Your task to perform on an android device: Open Google Chrome and open the bookmarks view Image 0: 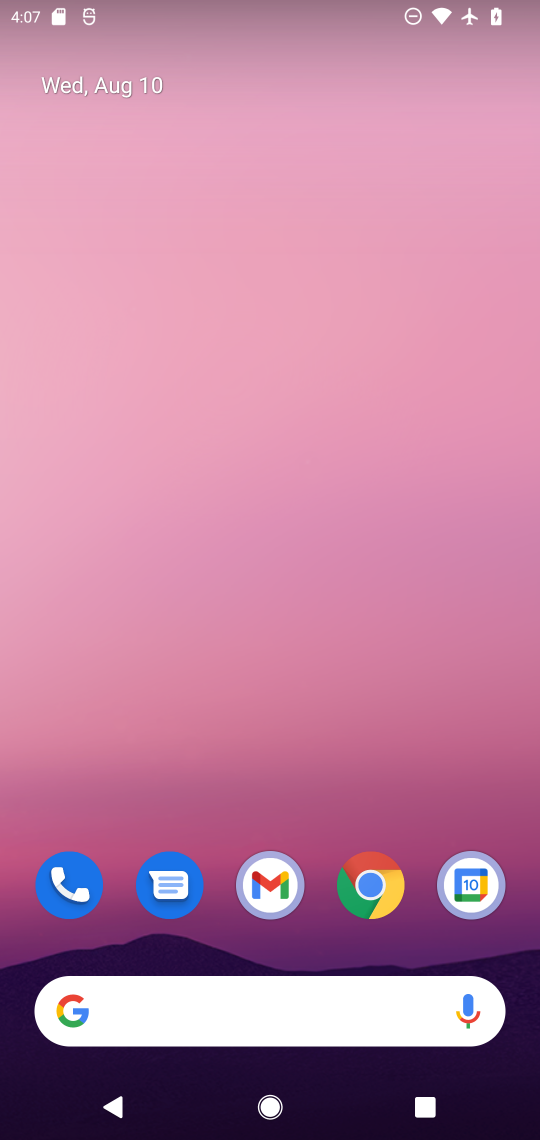
Step 0: click (379, 890)
Your task to perform on an android device: Open Google Chrome and open the bookmarks view Image 1: 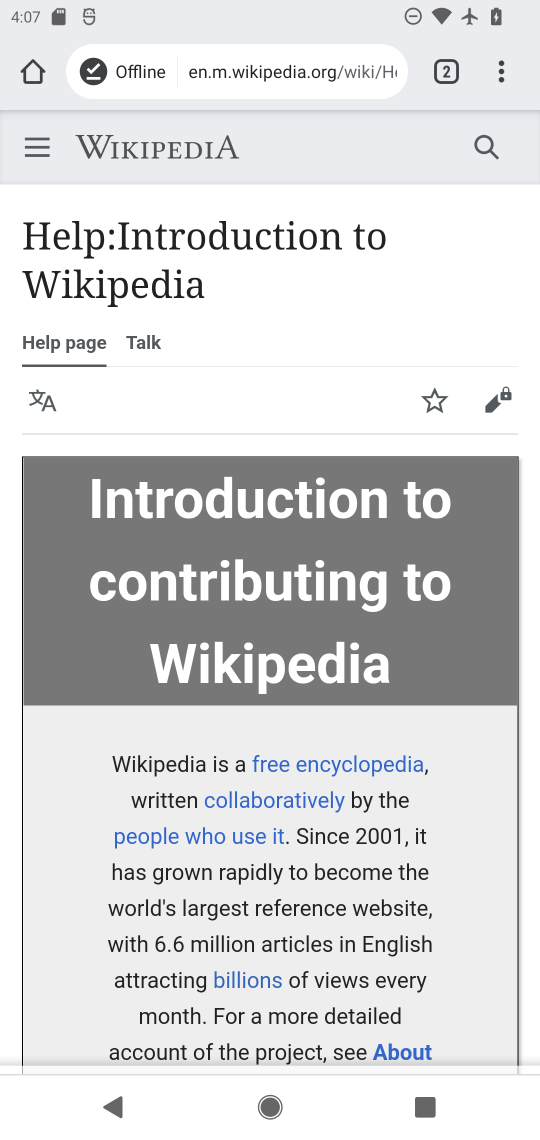
Step 1: click (494, 82)
Your task to perform on an android device: Open Google Chrome and open the bookmarks view Image 2: 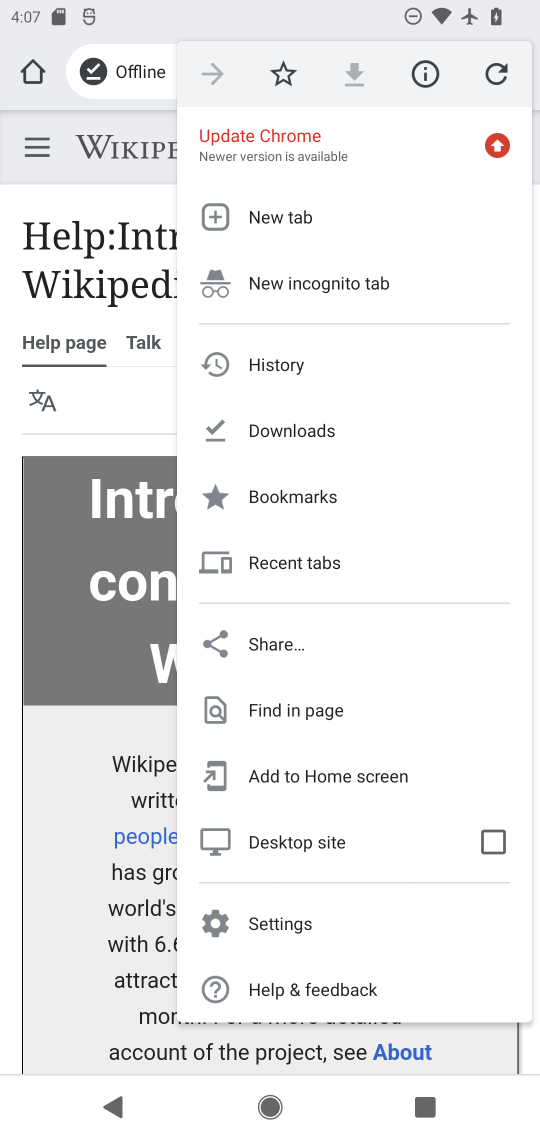
Step 2: click (298, 492)
Your task to perform on an android device: Open Google Chrome and open the bookmarks view Image 3: 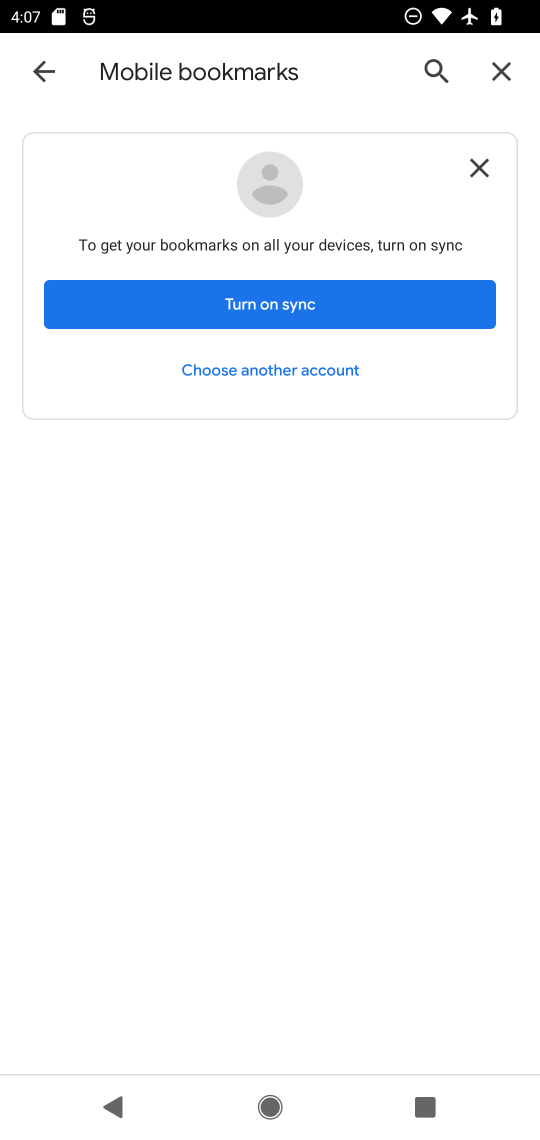
Step 3: click (314, 303)
Your task to perform on an android device: Open Google Chrome and open the bookmarks view Image 4: 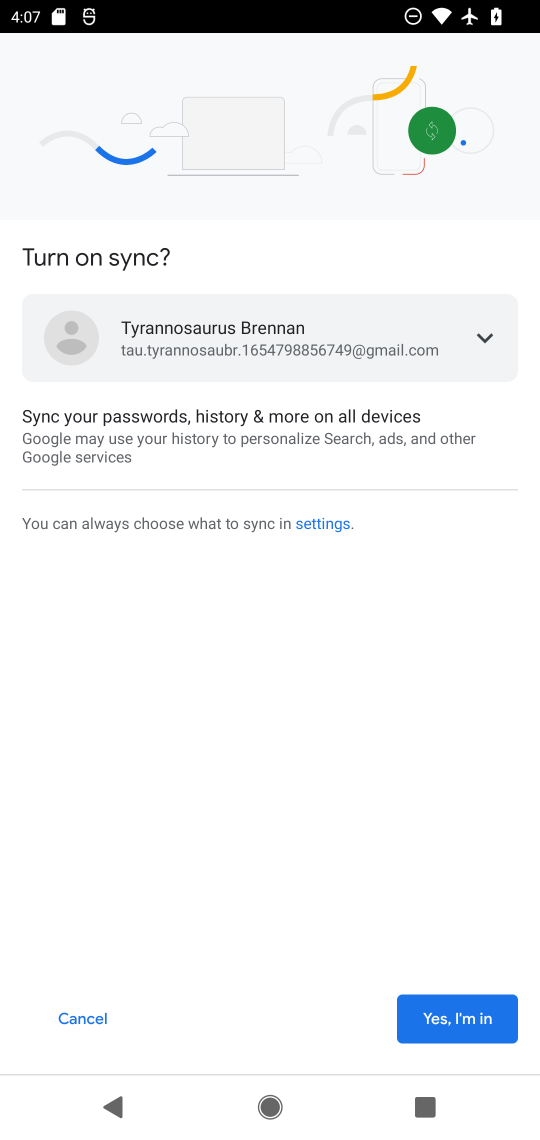
Step 4: click (423, 1010)
Your task to perform on an android device: Open Google Chrome and open the bookmarks view Image 5: 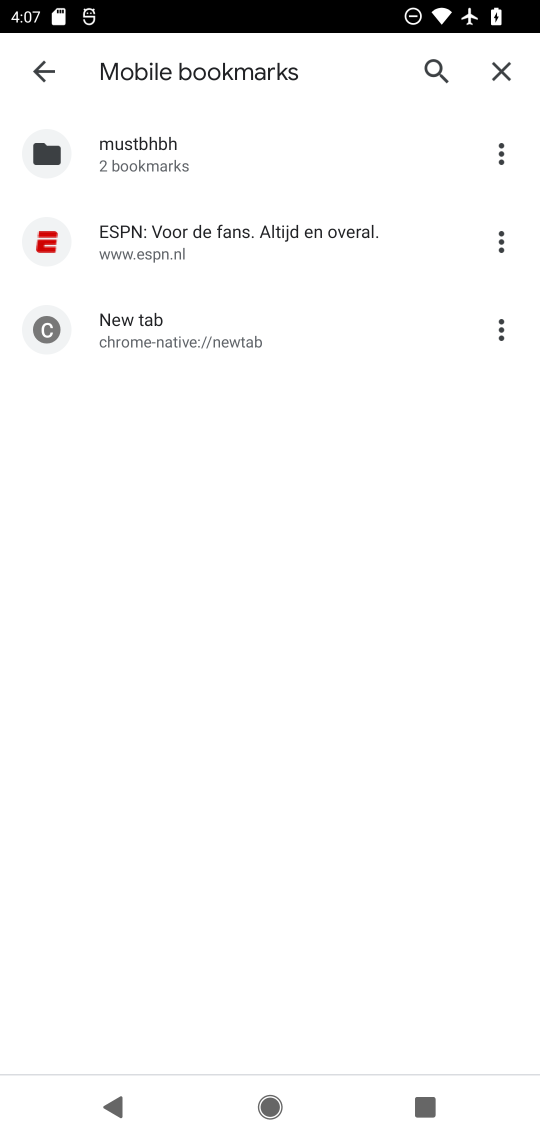
Step 5: click (502, 146)
Your task to perform on an android device: Open Google Chrome and open the bookmarks view Image 6: 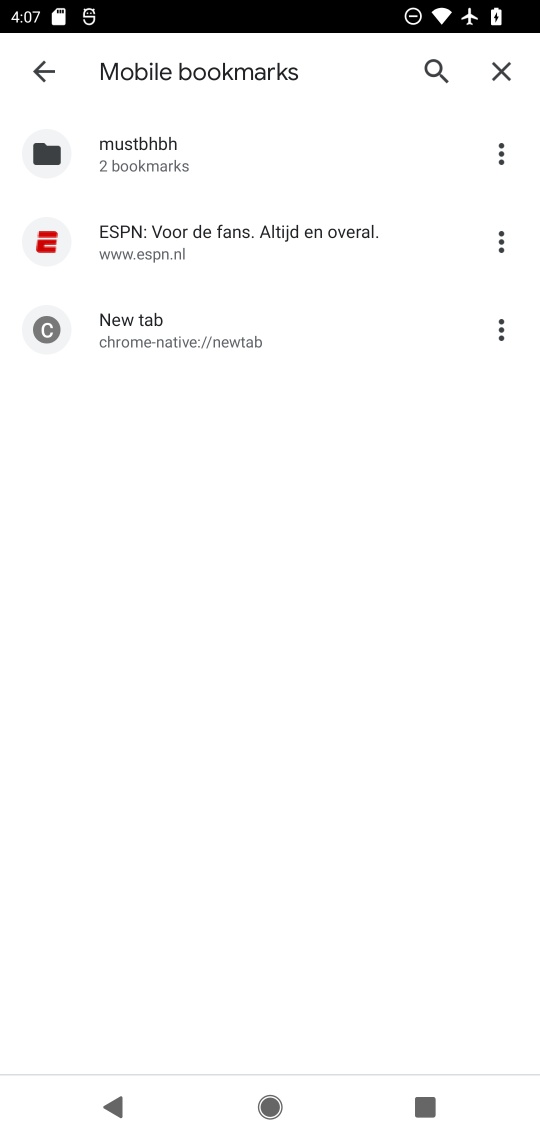
Step 6: click (498, 158)
Your task to perform on an android device: Open Google Chrome and open the bookmarks view Image 7: 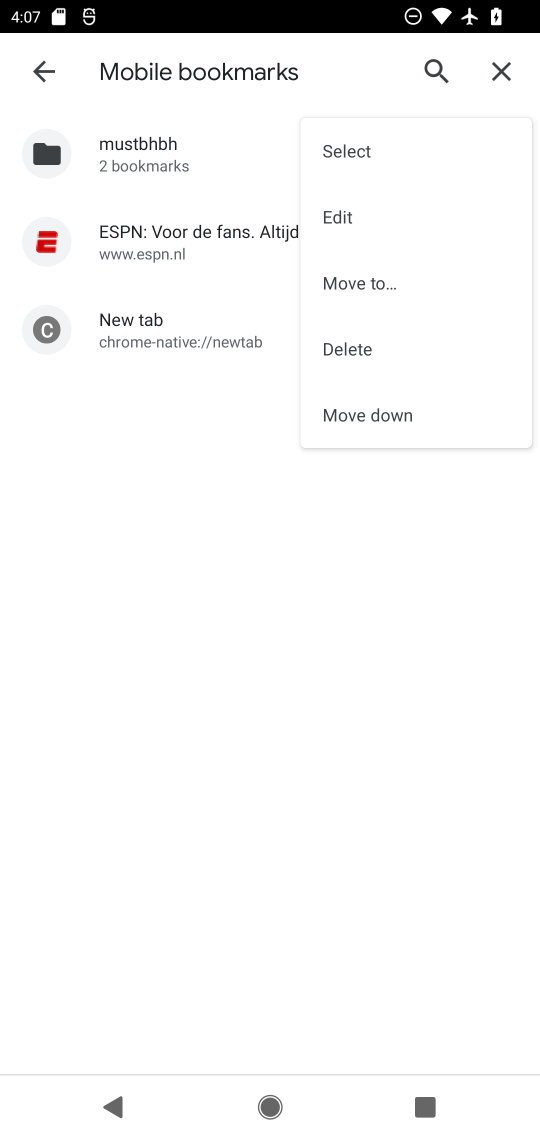
Step 7: click (355, 206)
Your task to perform on an android device: Open Google Chrome and open the bookmarks view Image 8: 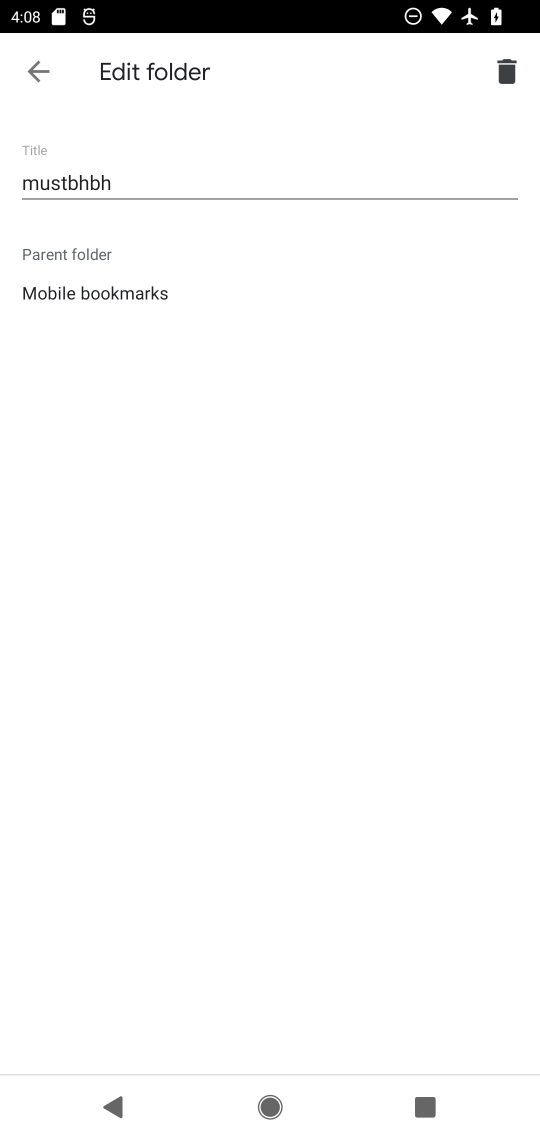
Step 8: task complete